Your task to perform on an android device: Search for Mexican restaurants on Maps Image 0: 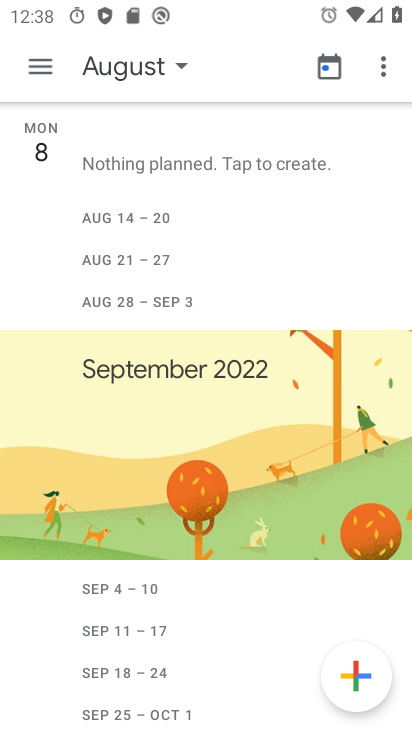
Step 0: press home button
Your task to perform on an android device: Search for Mexican restaurants on Maps Image 1: 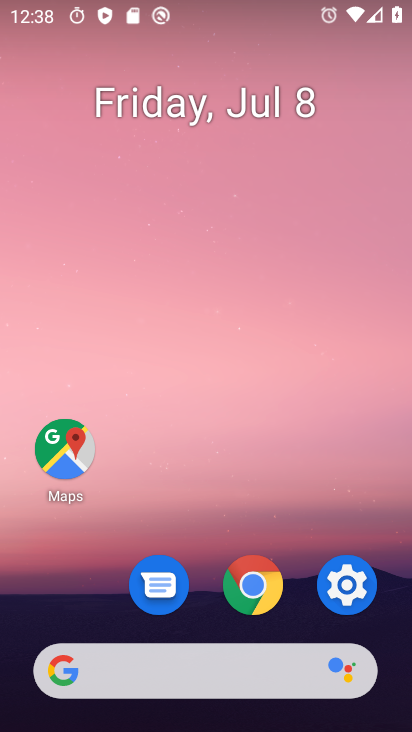
Step 1: click (66, 467)
Your task to perform on an android device: Search for Mexican restaurants on Maps Image 2: 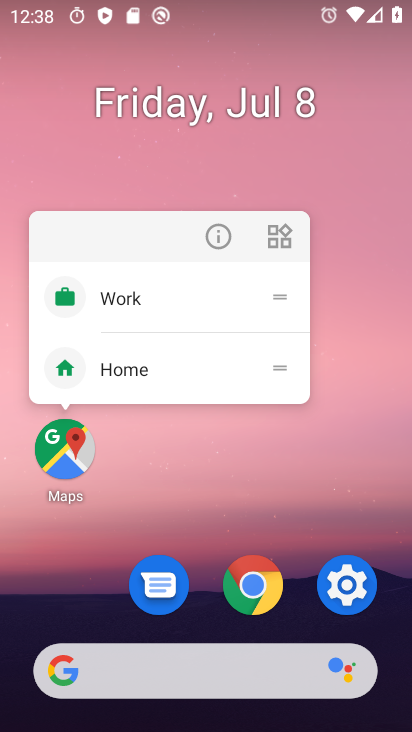
Step 2: click (68, 455)
Your task to perform on an android device: Search for Mexican restaurants on Maps Image 3: 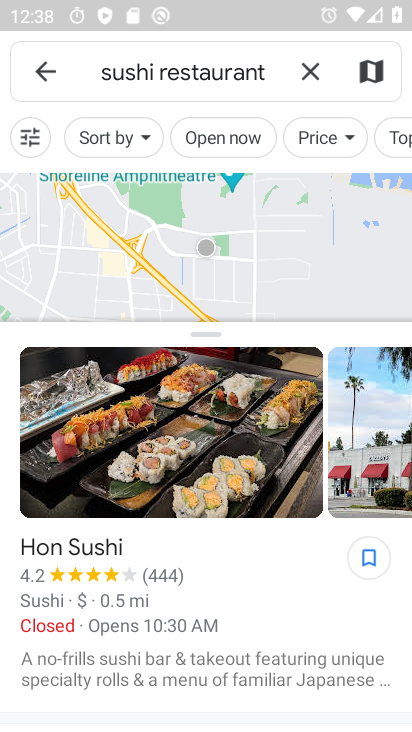
Step 3: click (300, 72)
Your task to perform on an android device: Search for Mexican restaurants on Maps Image 4: 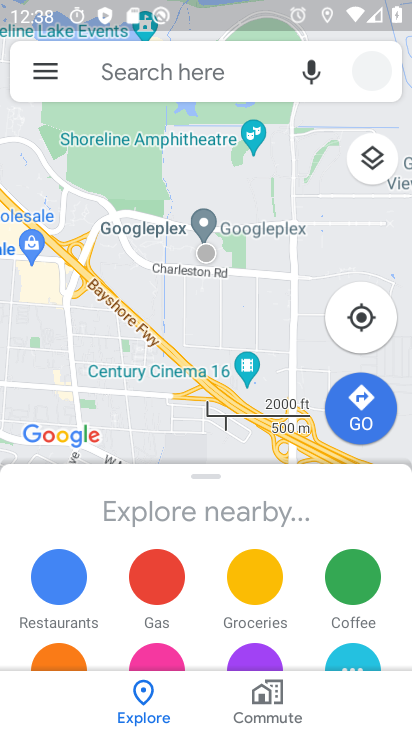
Step 4: click (186, 65)
Your task to perform on an android device: Search for Mexican restaurants on Maps Image 5: 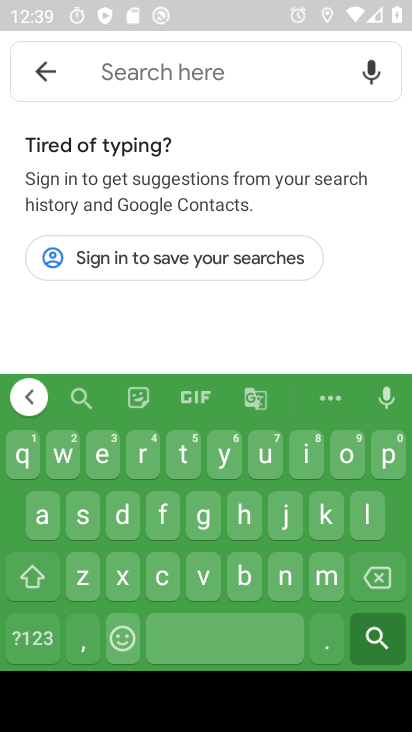
Step 5: click (339, 576)
Your task to perform on an android device: Search for Mexican restaurants on Maps Image 6: 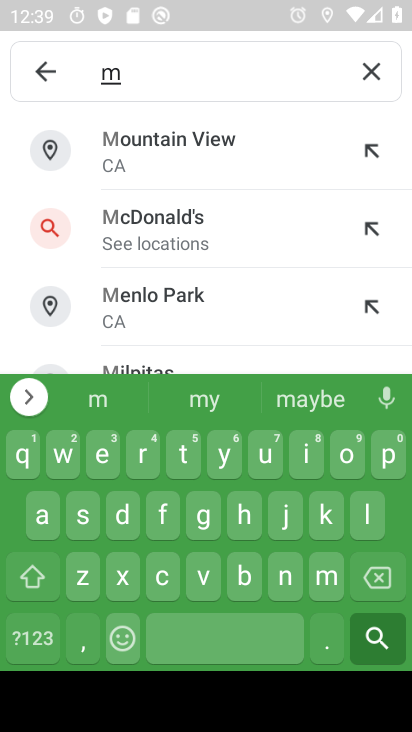
Step 6: click (106, 449)
Your task to perform on an android device: Search for Mexican restaurants on Maps Image 7: 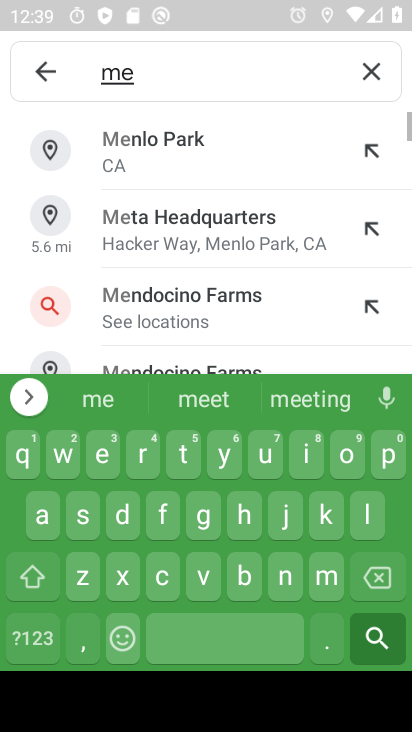
Step 7: click (125, 590)
Your task to perform on an android device: Search for Mexican restaurants on Maps Image 8: 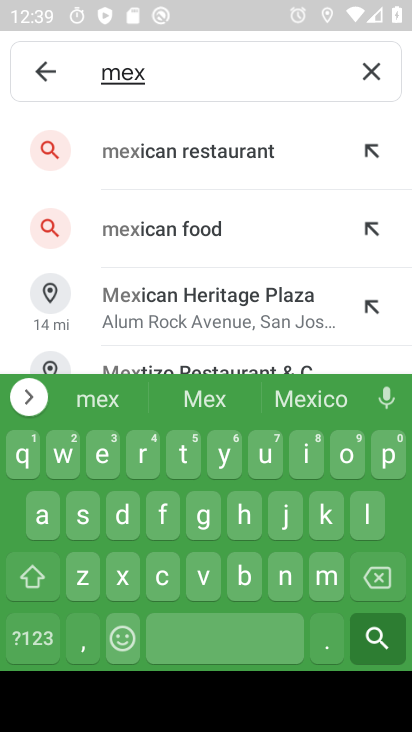
Step 8: click (212, 163)
Your task to perform on an android device: Search for Mexican restaurants on Maps Image 9: 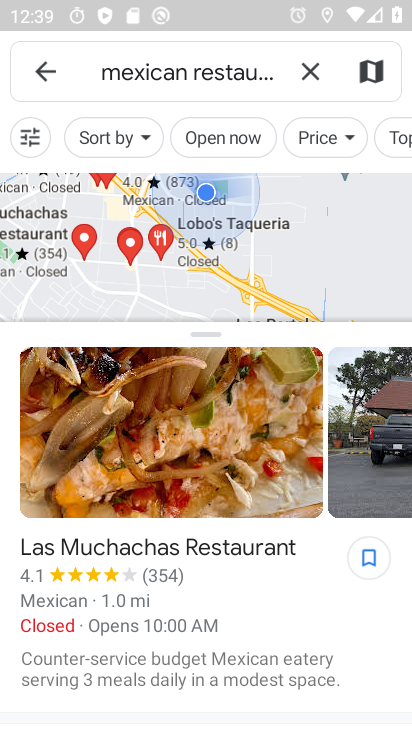
Step 9: task complete